Your task to perform on an android device: toggle translation in the chrome app Image 0: 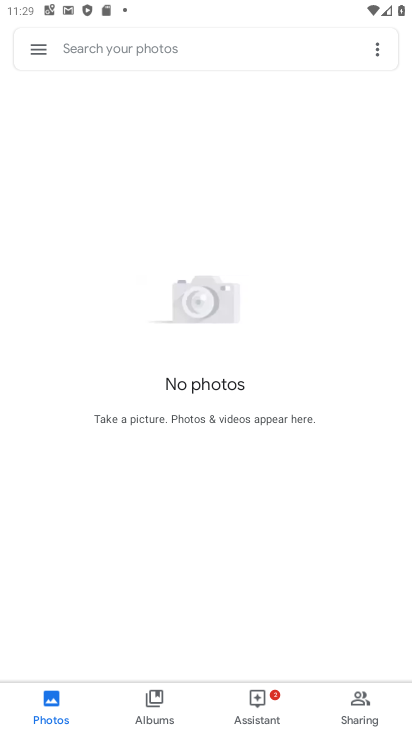
Step 0: press home button
Your task to perform on an android device: toggle translation in the chrome app Image 1: 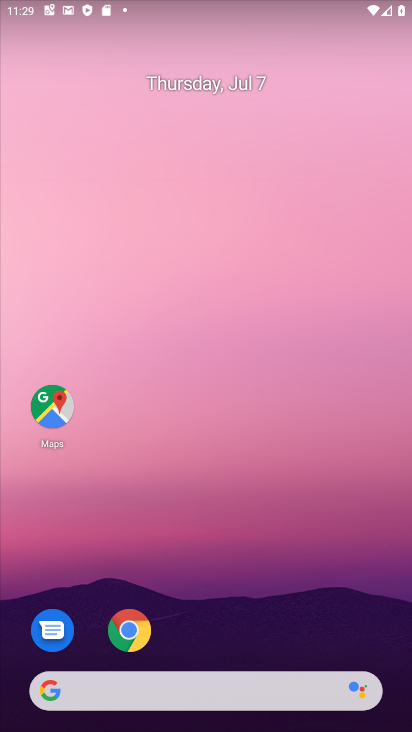
Step 1: click (128, 636)
Your task to perform on an android device: toggle translation in the chrome app Image 2: 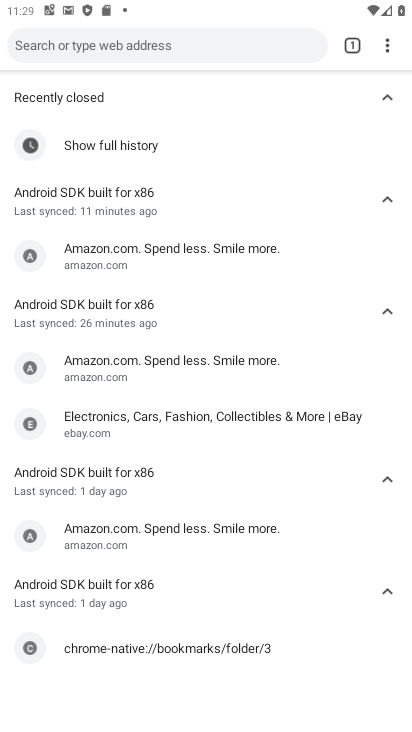
Step 2: click (384, 49)
Your task to perform on an android device: toggle translation in the chrome app Image 3: 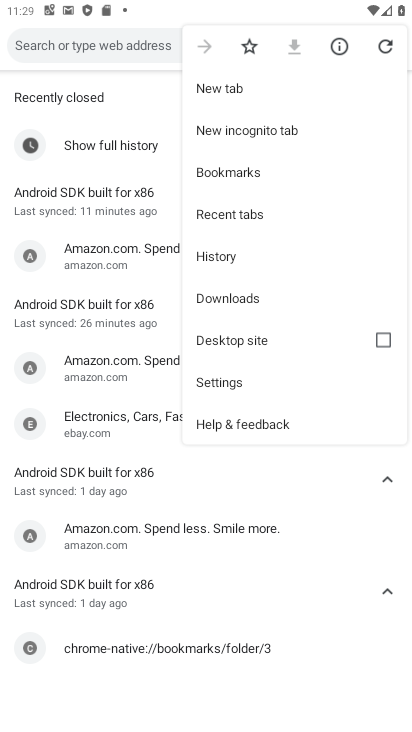
Step 3: click (228, 380)
Your task to perform on an android device: toggle translation in the chrome app Image 4: 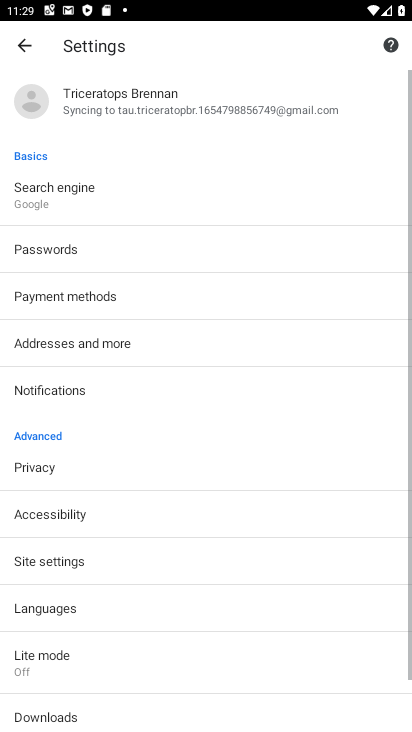
Step 4: click (146, 602)
Your task to perform on an android device: toggle translation in the chrome app Image 5: 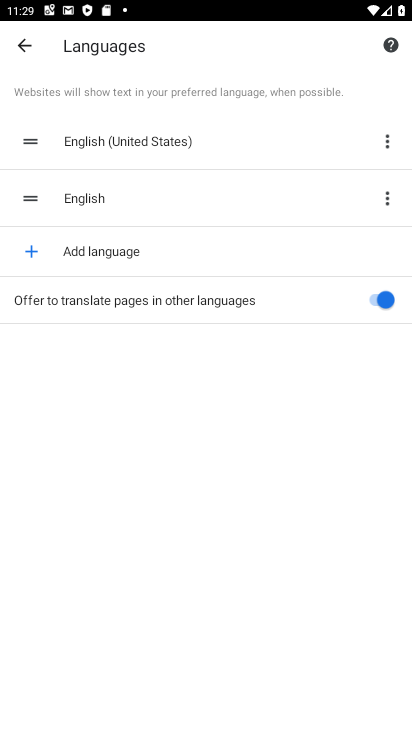
Step 5: click (371, 298)
Your task to perform on an android device: toggle translation in the chrome app Image 6: 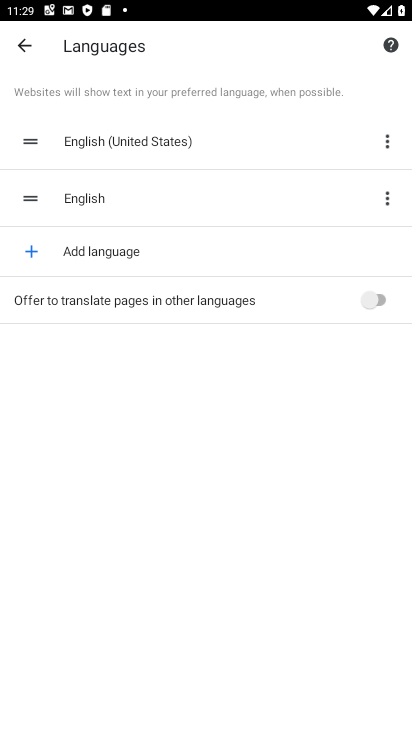
Step 6: task complete